Your task to perform on an android device: Go to display settings Image 0: 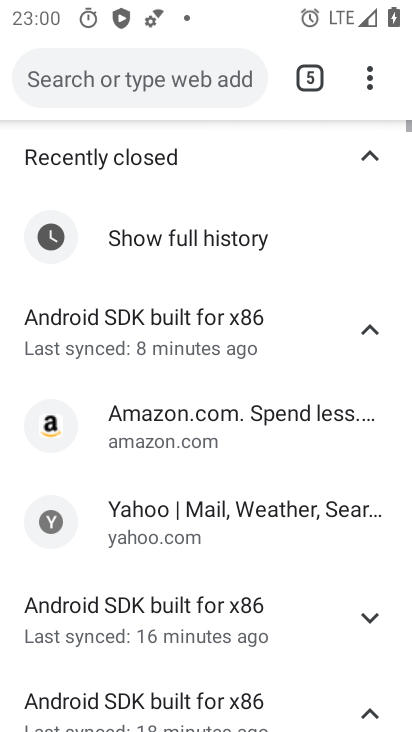
Step 0: press back button
Your task to perform on an android device: Go to display settings Image 1: 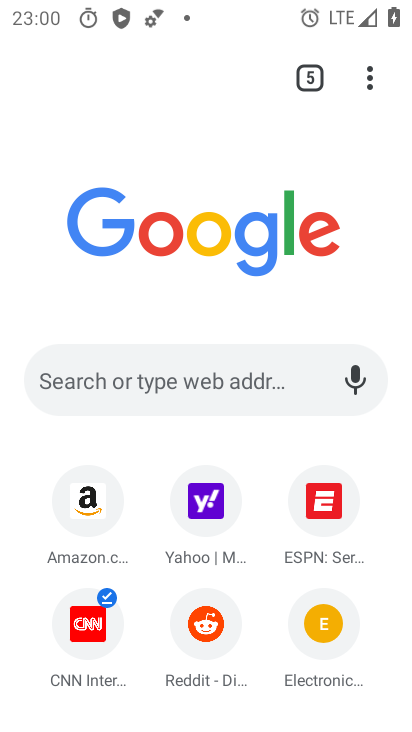
Step 1: press home button
Your task to perform on an android device: Go to display settings Image 2: 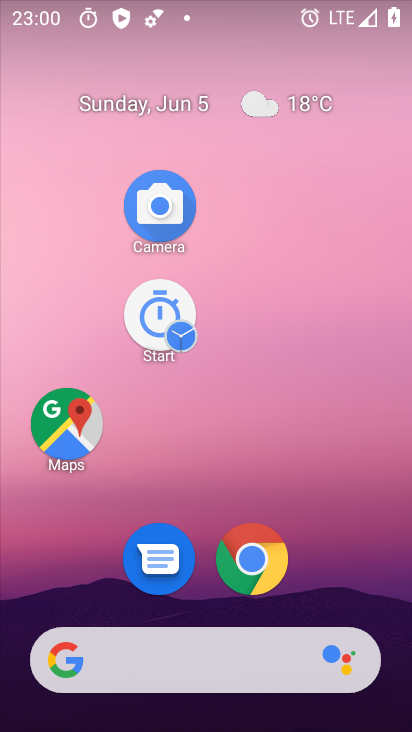
Step 2: drag from (281, 697) to (170, 146)
Your task to perform on an android device: Go to display settings Image 3: 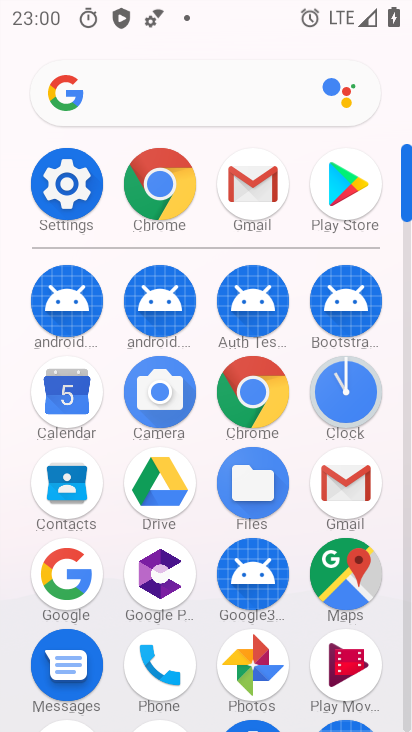
Step 3: click (76, 197)
Your task to perform on an android device: Go to display settings Image 4: 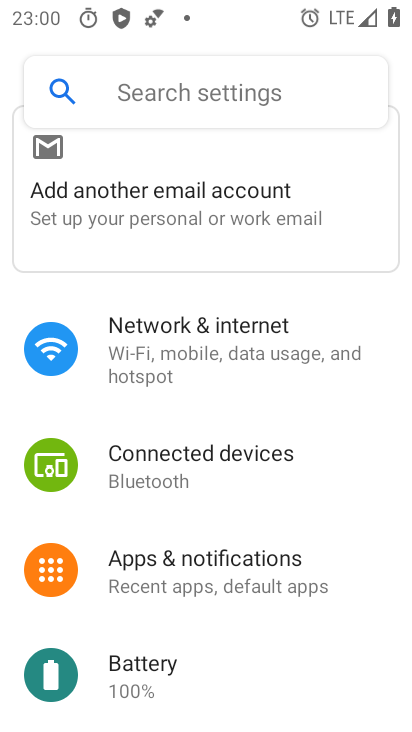
Step 4: drag from (176, 579) to (127, 231)
Your task to perform on an android device: Go to display settings Image 5: 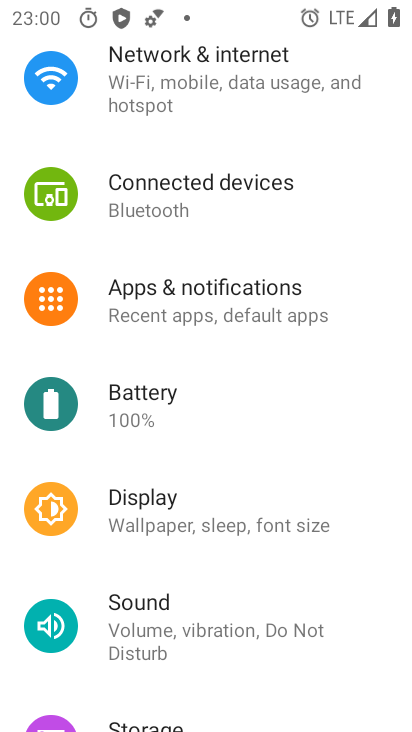
Step 5: drag from (127, 446) to (138, 241)
Your task to perform on an android device: Go to display settings Image 6: 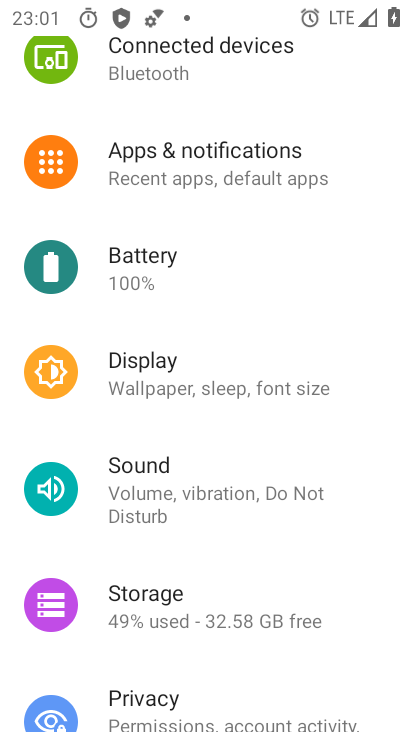
Step 6: click (115, 369)
Your task to perform on an android device: Go to display settings Image 7: 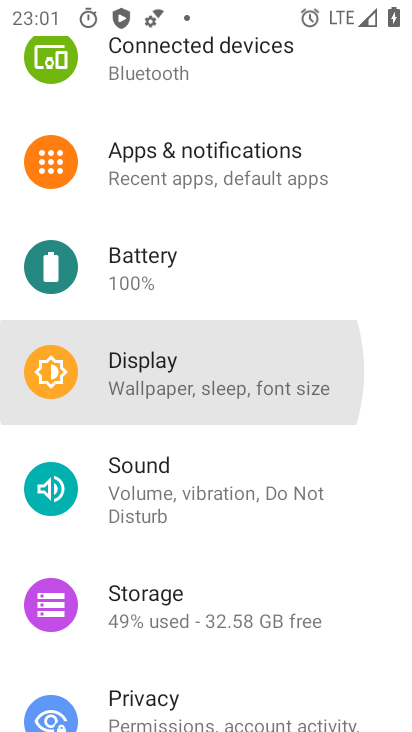
Step 7: click (128, 369)
Your task to perform on an android device: Go to display settings Image 8: 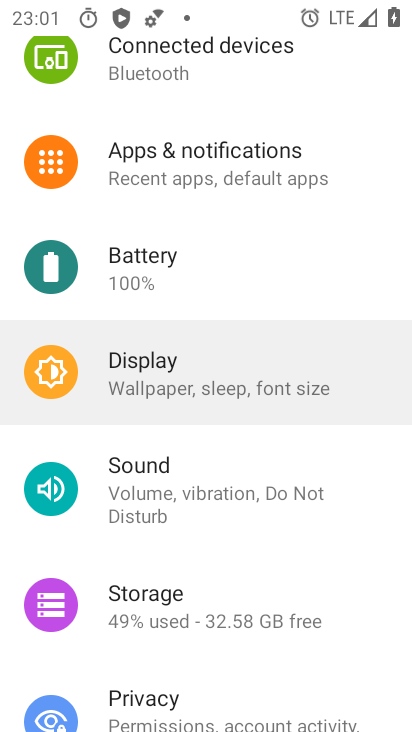
Step 8: click (127, 371)
Your task to perform on an android device: Go to display settings Image 9: 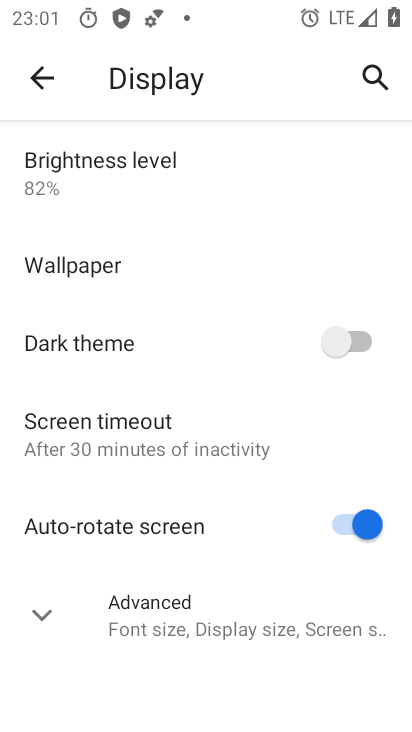
Step 9: task complete